Your task to perform on an android device: Is it going to rain this weekend? Image 0: 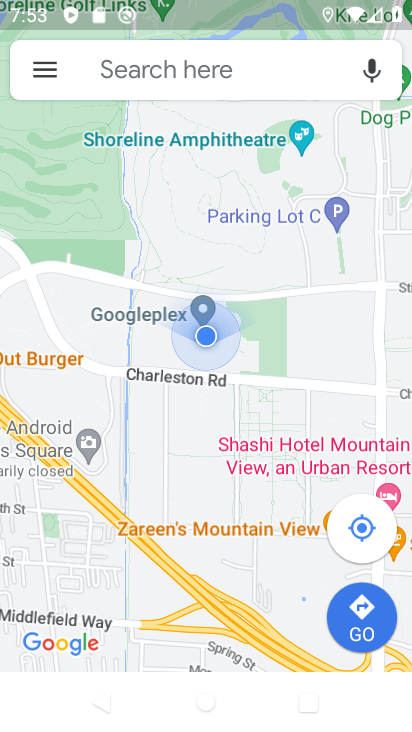
Step 0: press home button
Your task to perform on an android device: Is it going to rain this weekend? Image 1: 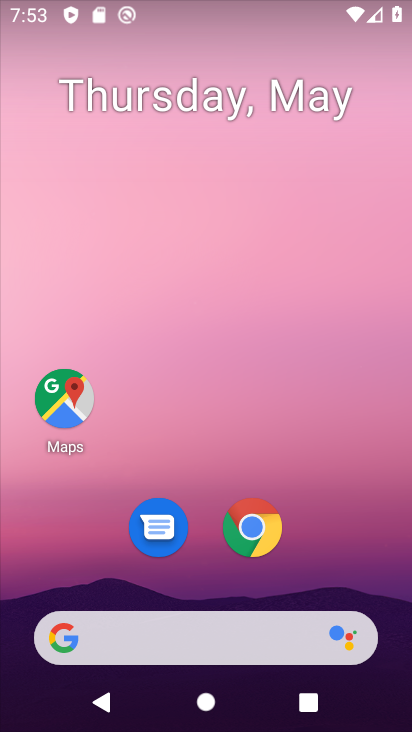
Step 1: click (130, 640)
Your task to perform on an android device: Is it going to rain this weekend? Image 2: 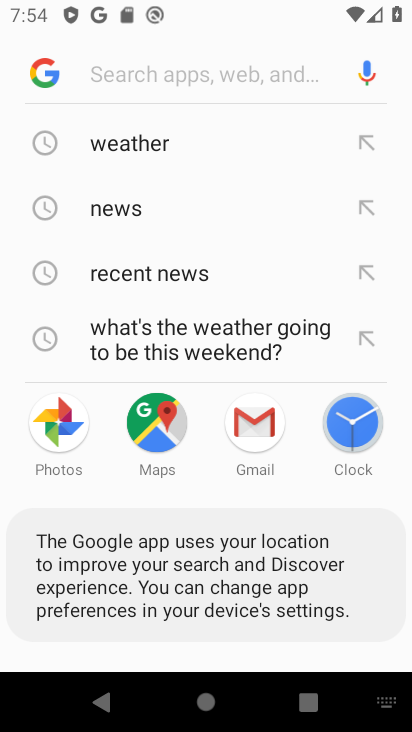
Step 2: click (145, 162)
Your task to perform on an android device: Is it going to rain this weekend? Image 3: 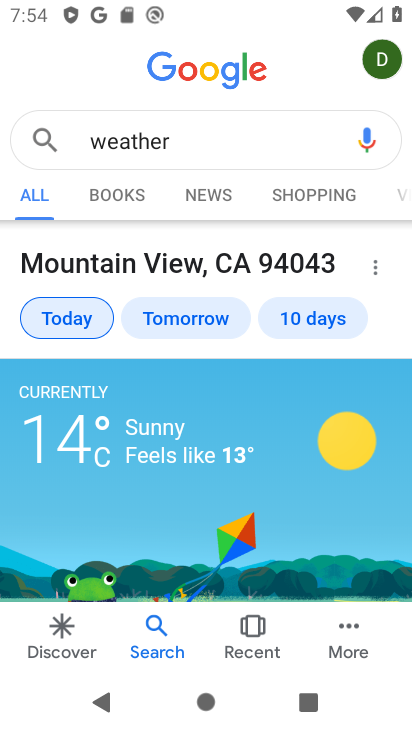
Step 3: click (273, 322)
Your task to perform on an android device: Is it going to rain this weekend? Image 4: 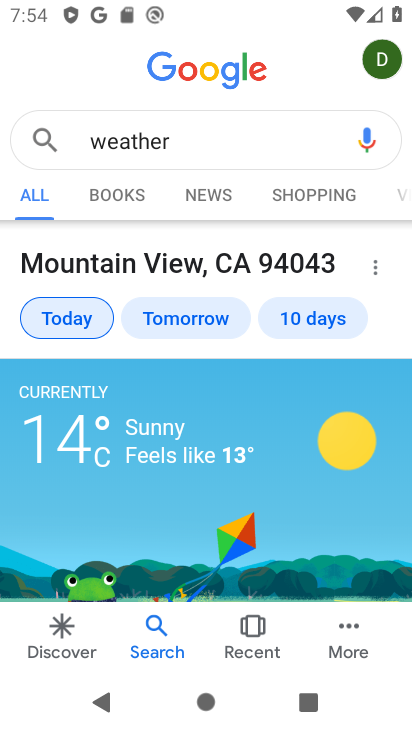
Step 4: click (336, 324)
Your task to perform on an android device: Is it going to rain this weekend? Image 5: 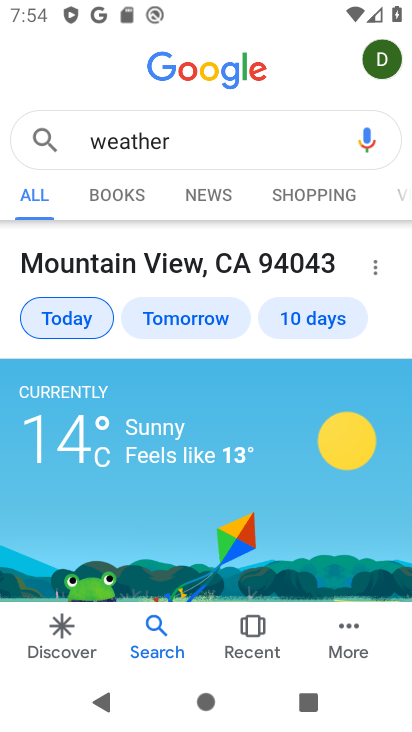
Step 5: click (296, 317)
Your task to perform on an android device: Is it going to rain this weekend? Image 6: 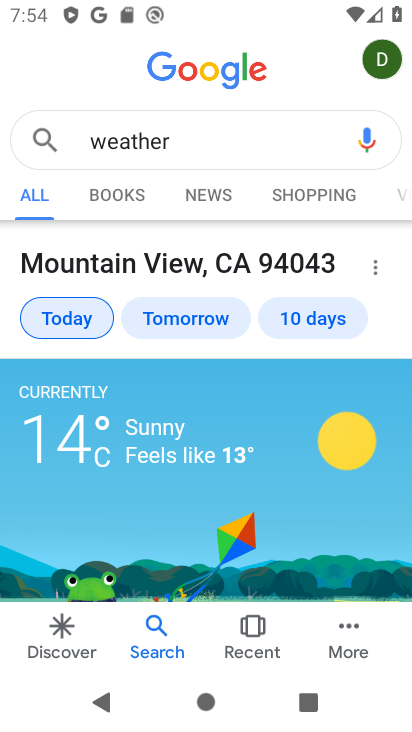
Step 6: task complete